Your task to perform on an android device: Play the last video I watched on Youtube Image 0: 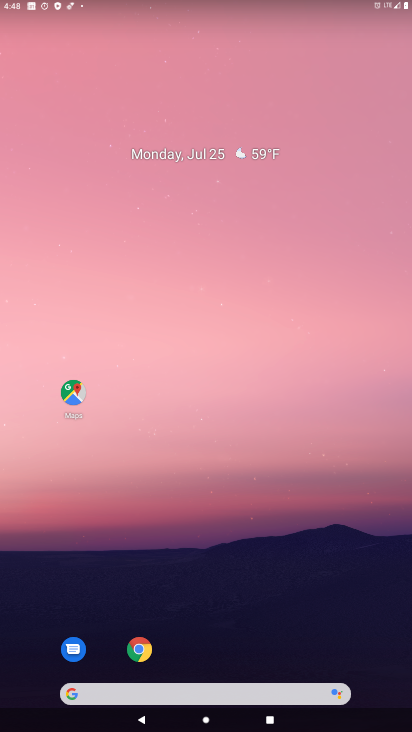
Step 0: drag from (280, 631) to (233, 57)
Your task to perform on an android device: Play the last video I watched on Youtube Image 1: 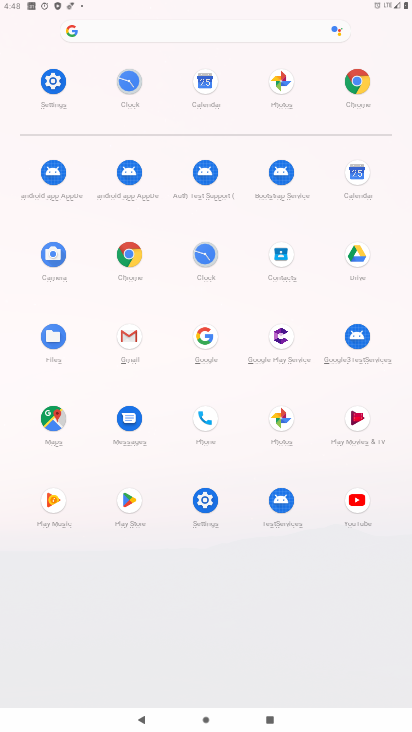
Step 1: click (369, 501)
Your task to perform on an android device: Play the last video I watched on Youtube Image 2: 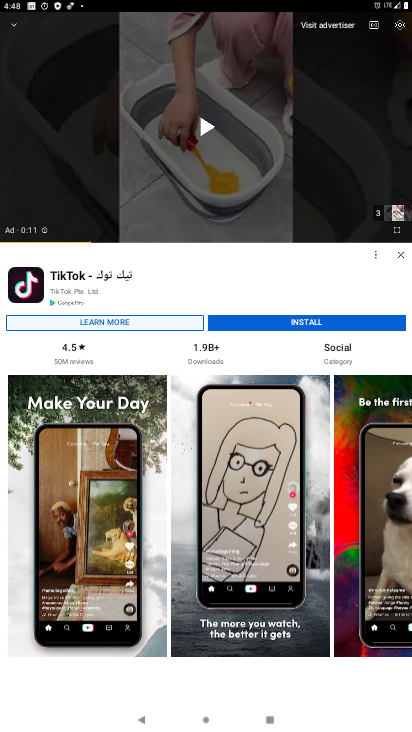
Step 2: press back button
Your task to perform on an android device: Play the last video I watched on Youtube Image 3: 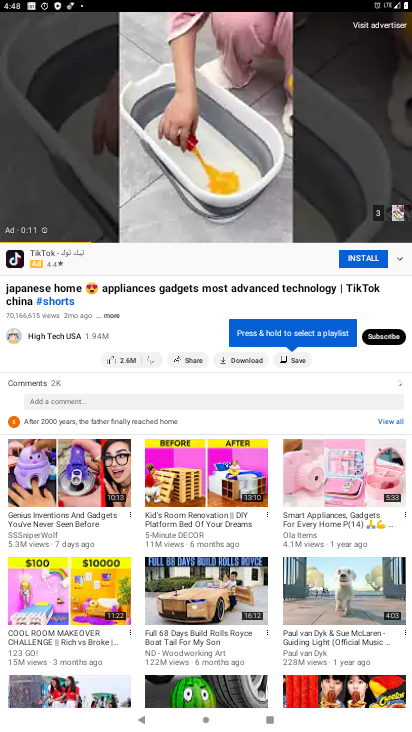
Step 3: press back button
Your task to perform on an android device: Play the last video I watched on Youtube Image 4: 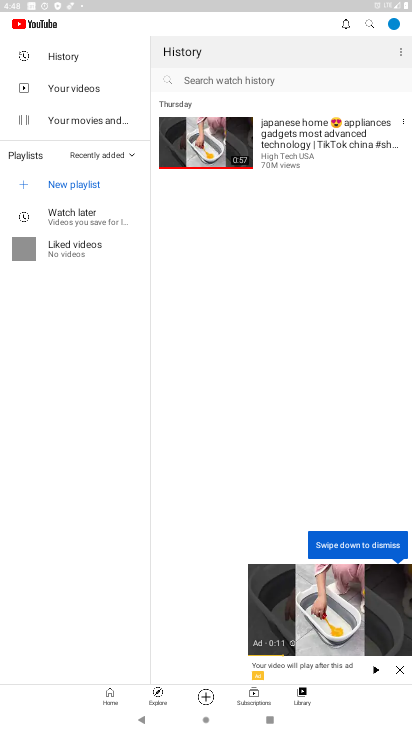
Step 4: click (270, 129)
Your task to perform on an android device: Play the last video I watched on Youtube Image 5: 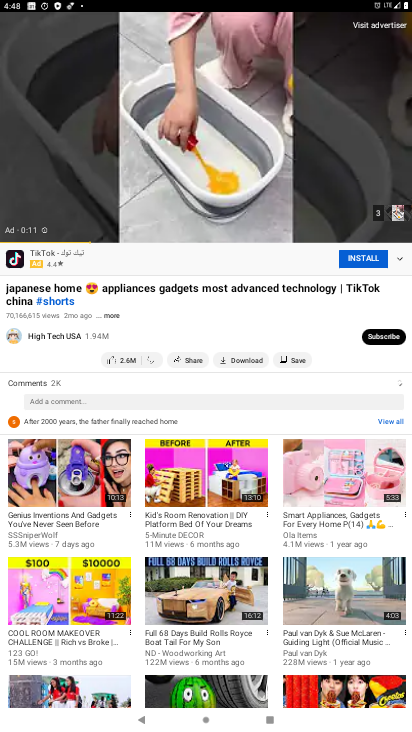
Step 5: task complete